Your task to perform on an android device: turn on showing notifications on the lock screen Image 0: 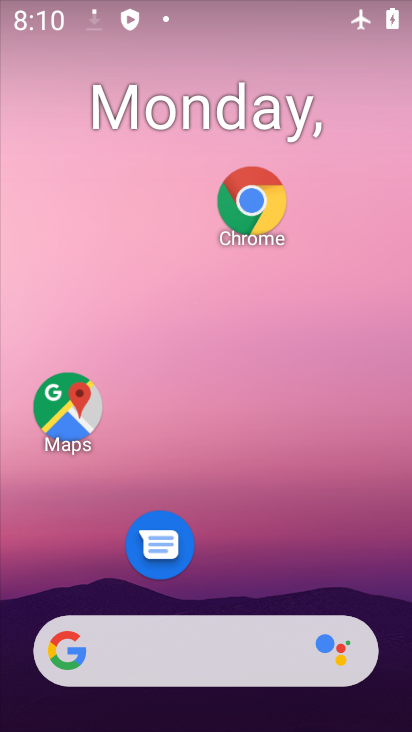
Step 0: drag from (230, 537) to (232, 95)
Your task to perform on an android device: turn on showing notifications on the lock screen Image 1: 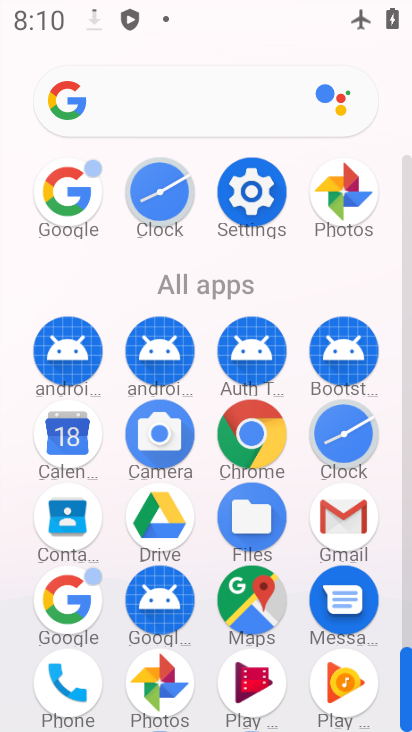
Step 1: click (261, 168)
Your task to perform on an android device: turn on showing notifications on the lock screen Image 2: 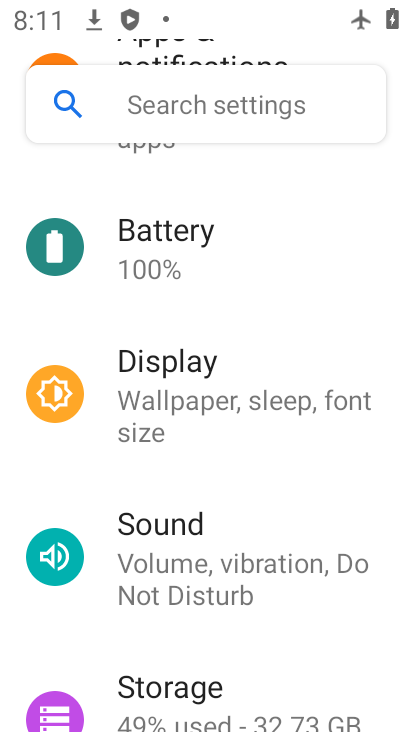
Step 2: drag from (242, 257) to (255, 586)
Your task to perform on an android device: turn on showing notifications on the lock screen Image 3: 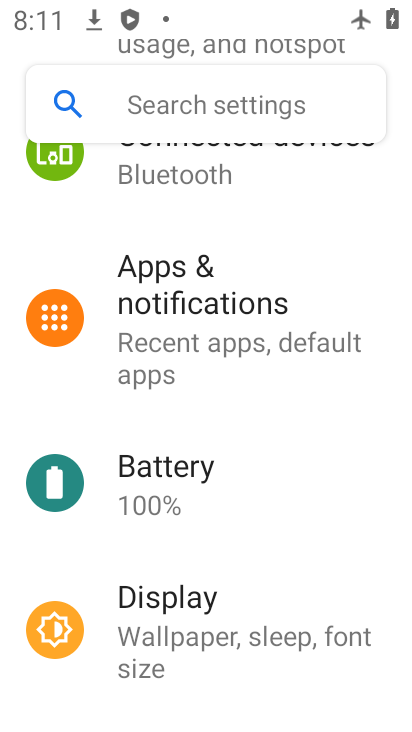
Step 3: drag from (249, 398) to (254, 235)
Your task to perform on an android device: turn on showing notifications on the lock screen Image 4: 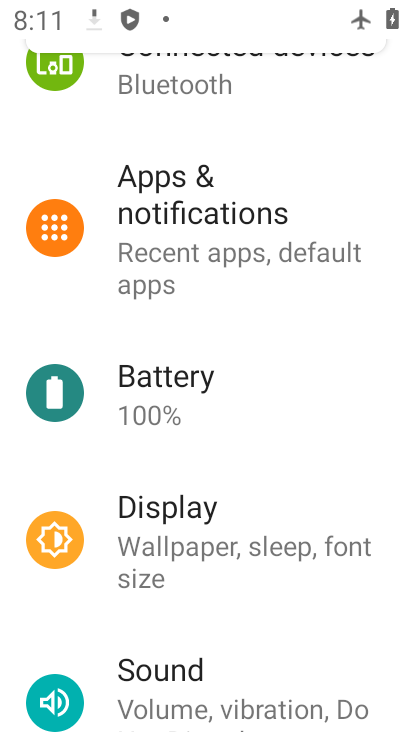
Step 4: drag from (244, 543) to (243, 309)
Your task to perform on an android device: turn on showing notifications on the lock screen Image 5: 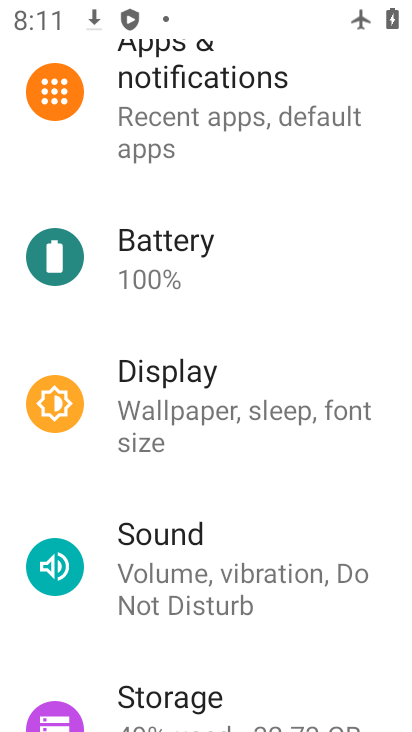
Step 5: click (228, 121)
Your task to perform on an android device: turn on showing notifications on the lock screen Image 6: 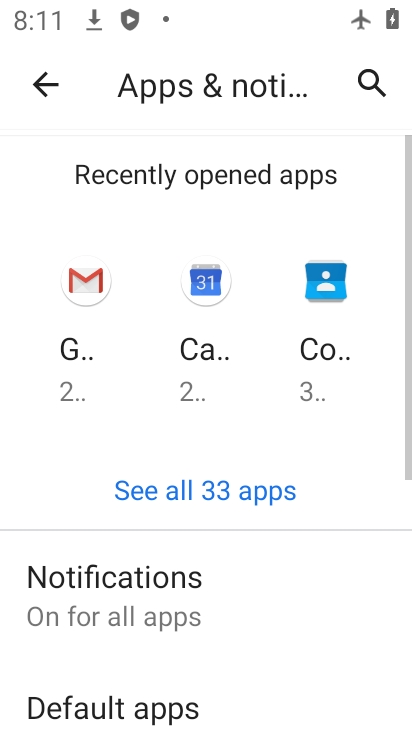
Step 6: click (244, 597)
Your task to perform on an android device: turn on showing notifications on the lock screen Image 7: 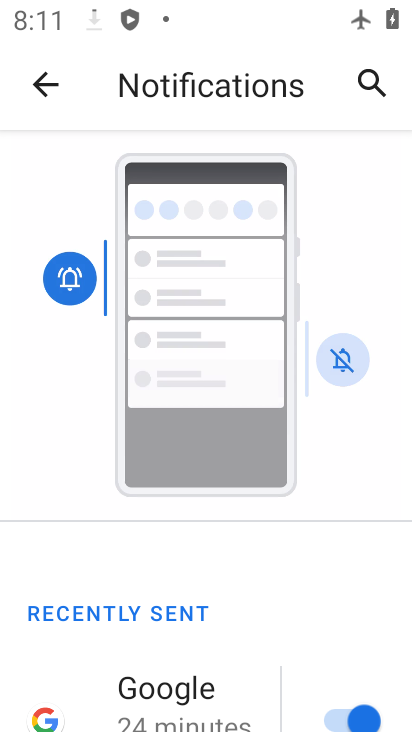
Step 7: drag from (271, 670) to (271, 235)
Your task to perform on an android device: turn on showing notifications on the lock screen Image 8: 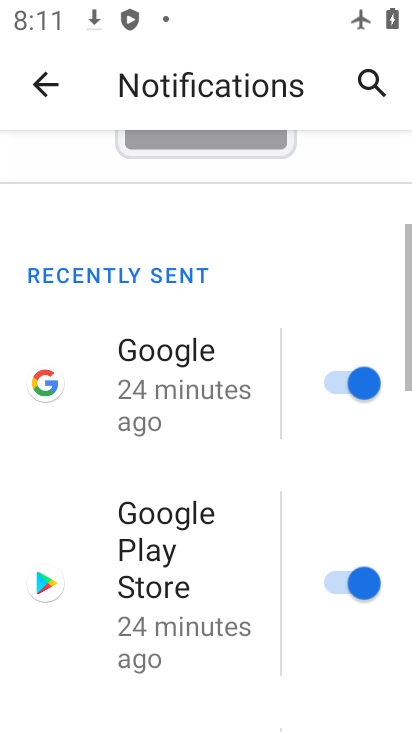
Step 8: drag from (249, 619) to (248, 263)
Your task to perform on an android device: turn on showing notifications on the lock screen Image 9: 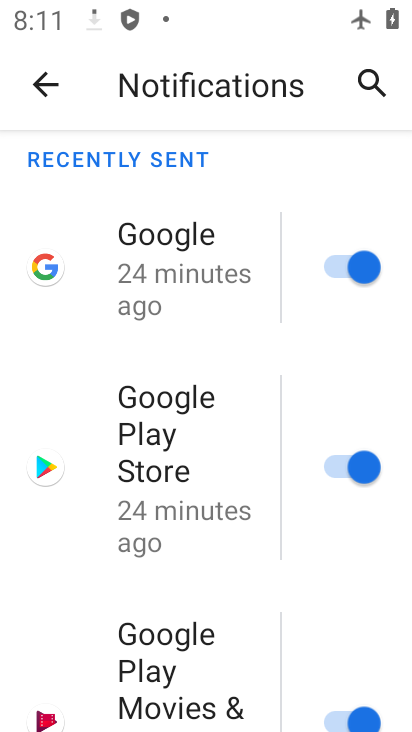
Step 9: drag from (248, 561) to (231, 240)
Your task to perform on an android device: turn on showing notifications on the lock screen Image 10: 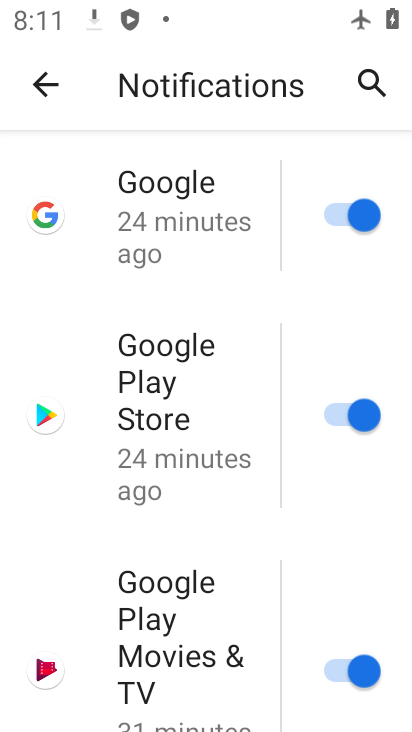
Step 10: drag from (225, 621) to (231, 211)
Your task to perform on an android device: turn on showing notifications on the lock screen Image 11: 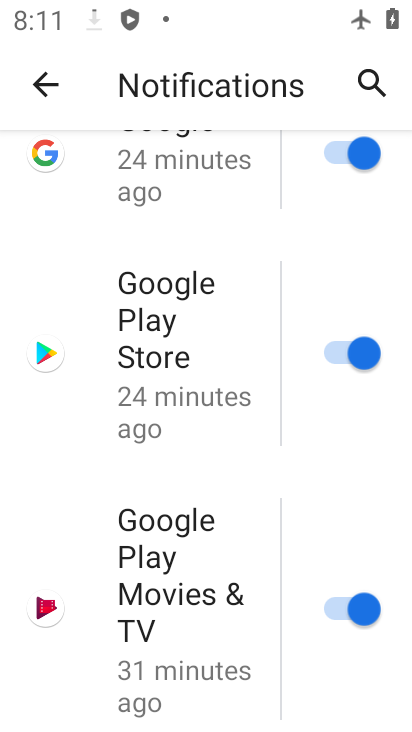
Step 11: drag from (215, 678) to (229, 193)
Your task to perform on an android device: turn on showing notifications on the lock screen Image 12: 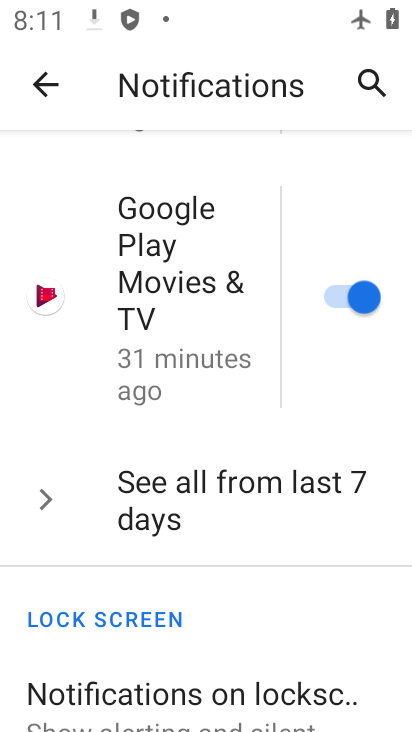
Step 12: drag from (212, 622) to (211, 240)
Your task to perform on an android device: turn on showing notifications on the lock screen Image 13: 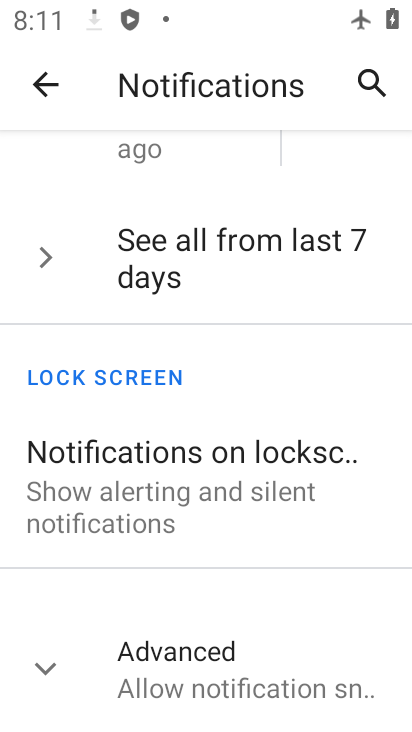
Step 13: click (171, 518)
Your task to perform on an android device: turn on showing notifications on the lock screen Image 14: 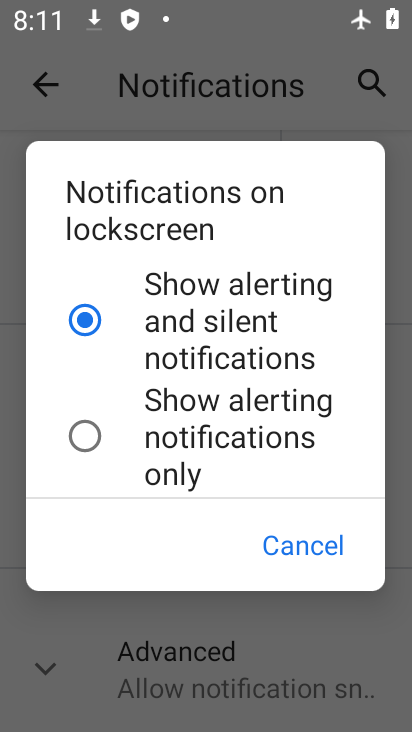
Step 14: task complete